Your task to perform on an android device: What's on the menu at Starbucks? Image 0: 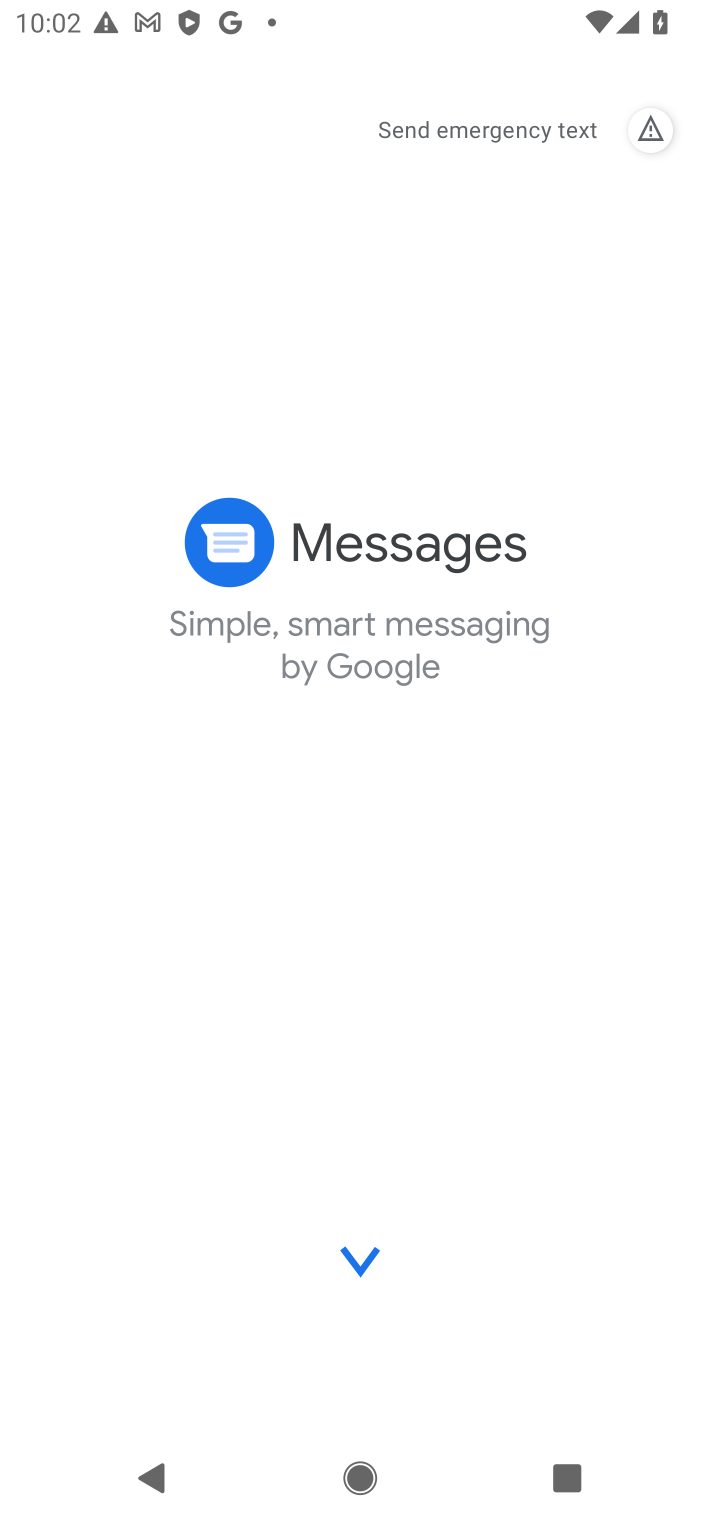
Step 0: press home button
Your task to perform on an android device: What's on the menu at Starbucks? Image 1: 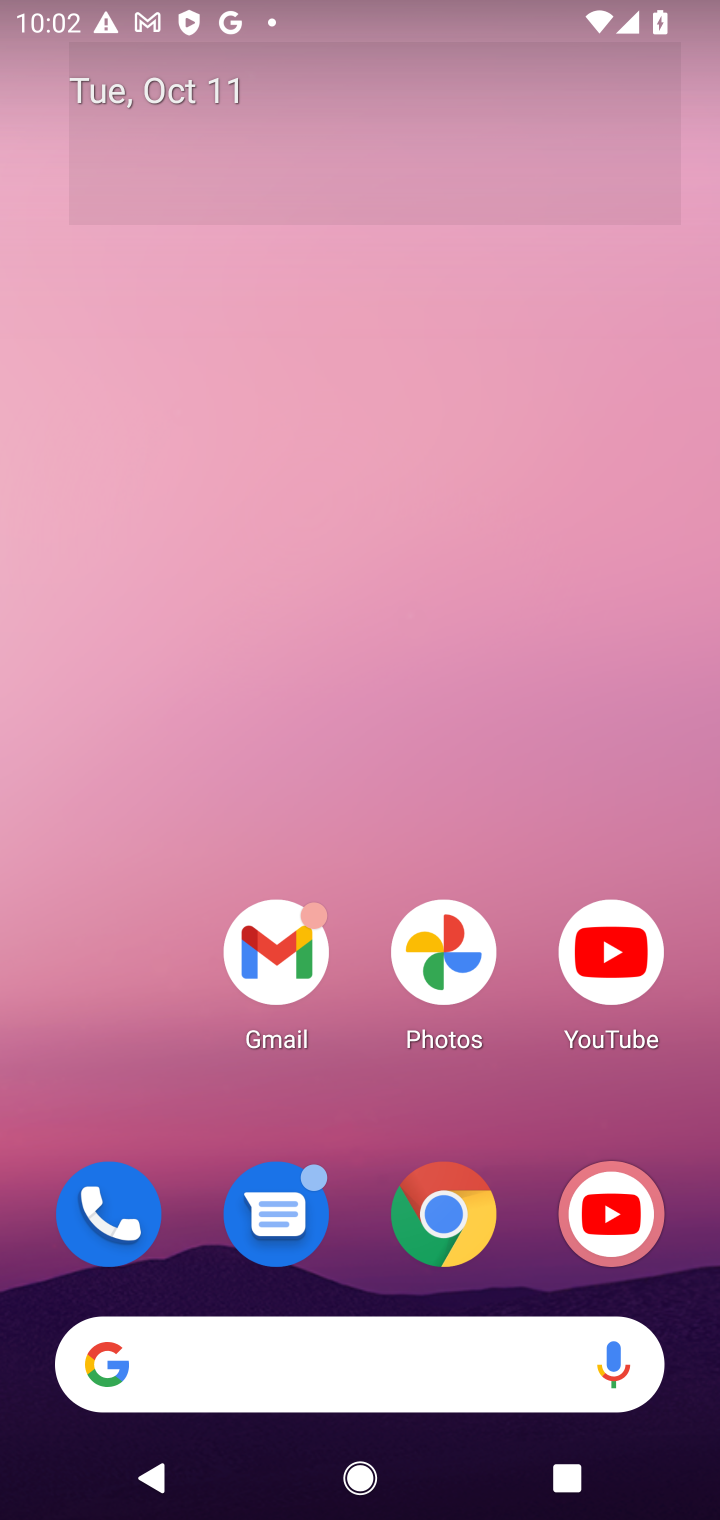
Step 1: drag from (451, 386) to (426, 248)
Your task to perform on an android device: What's on the menu at Starbucks? Image 2: 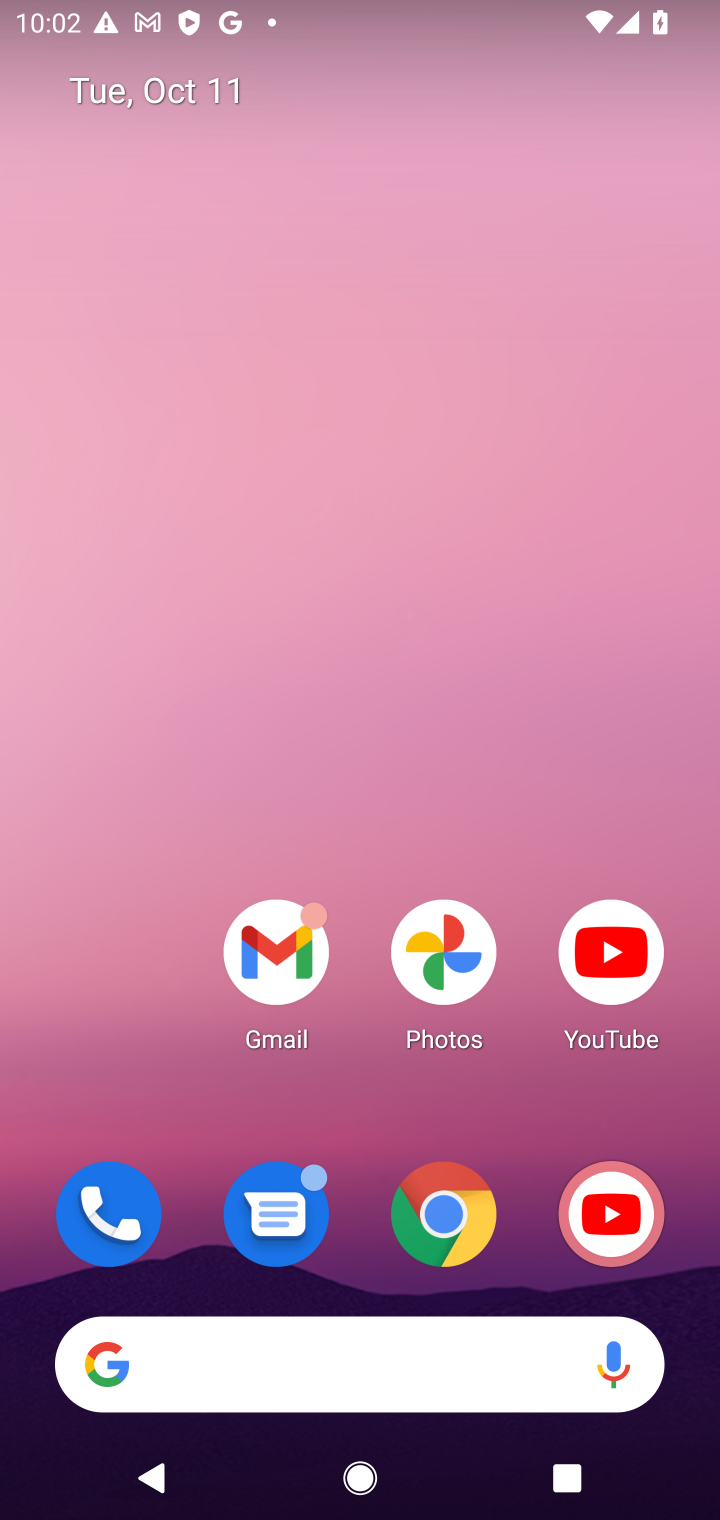
Step 2: drag from (340, 863) to (414, 265)
Your task to perform on an android device: What's on the menu at Starbucks? Image 3: 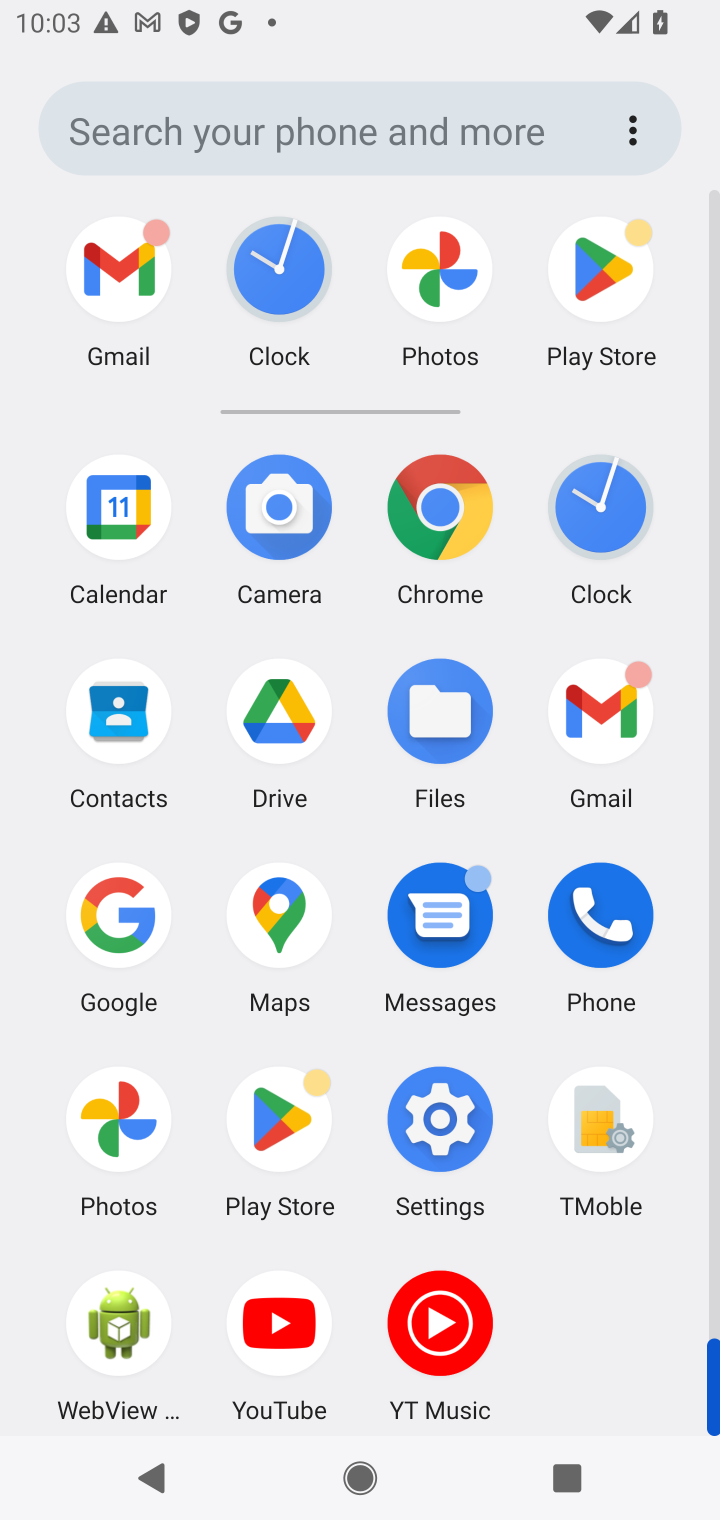
Step 3: click (450, 505)
Your task to perform on an android device: What's on the menu at Starbucks? Image 4: 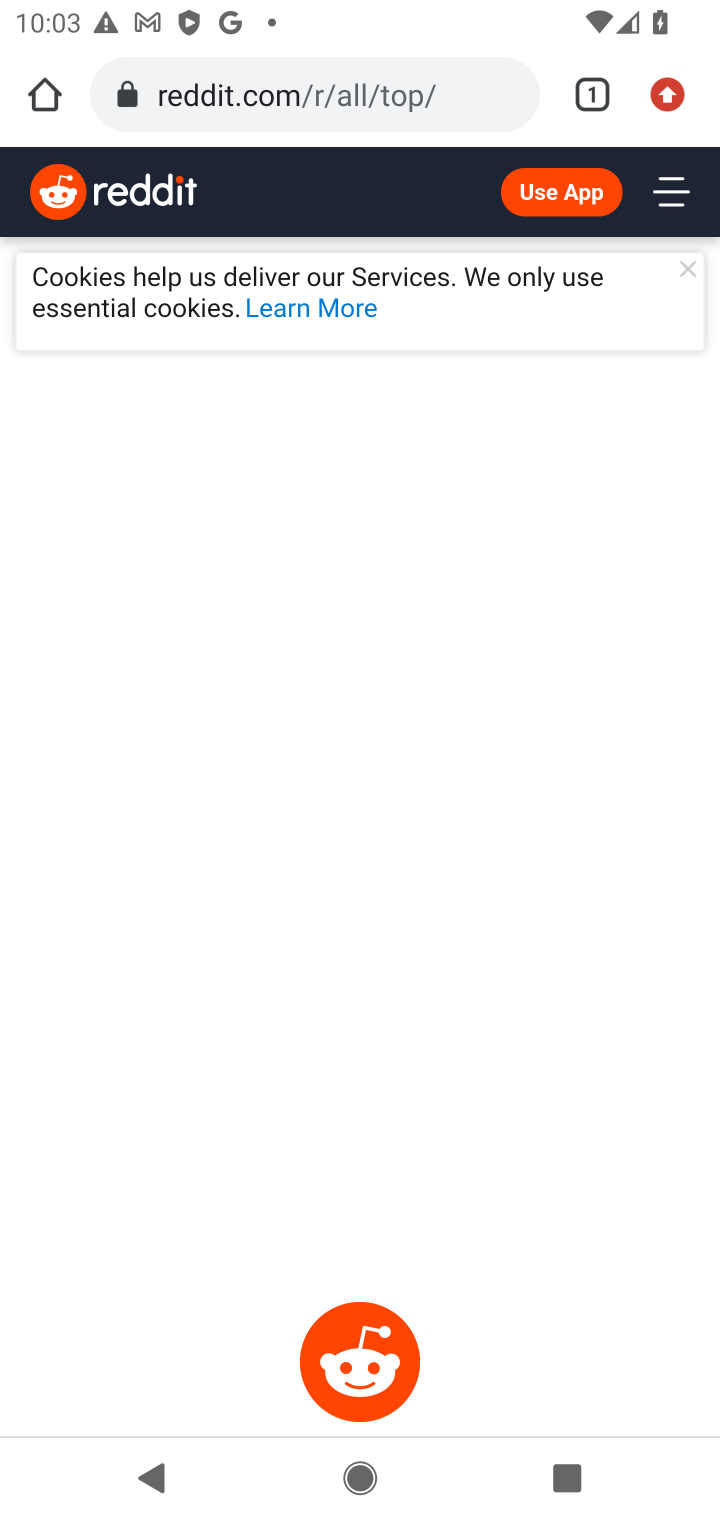
Step 4: click (305, 84)
Your task to perform on an android device: What's on the menu at Starbucks? Image 5: 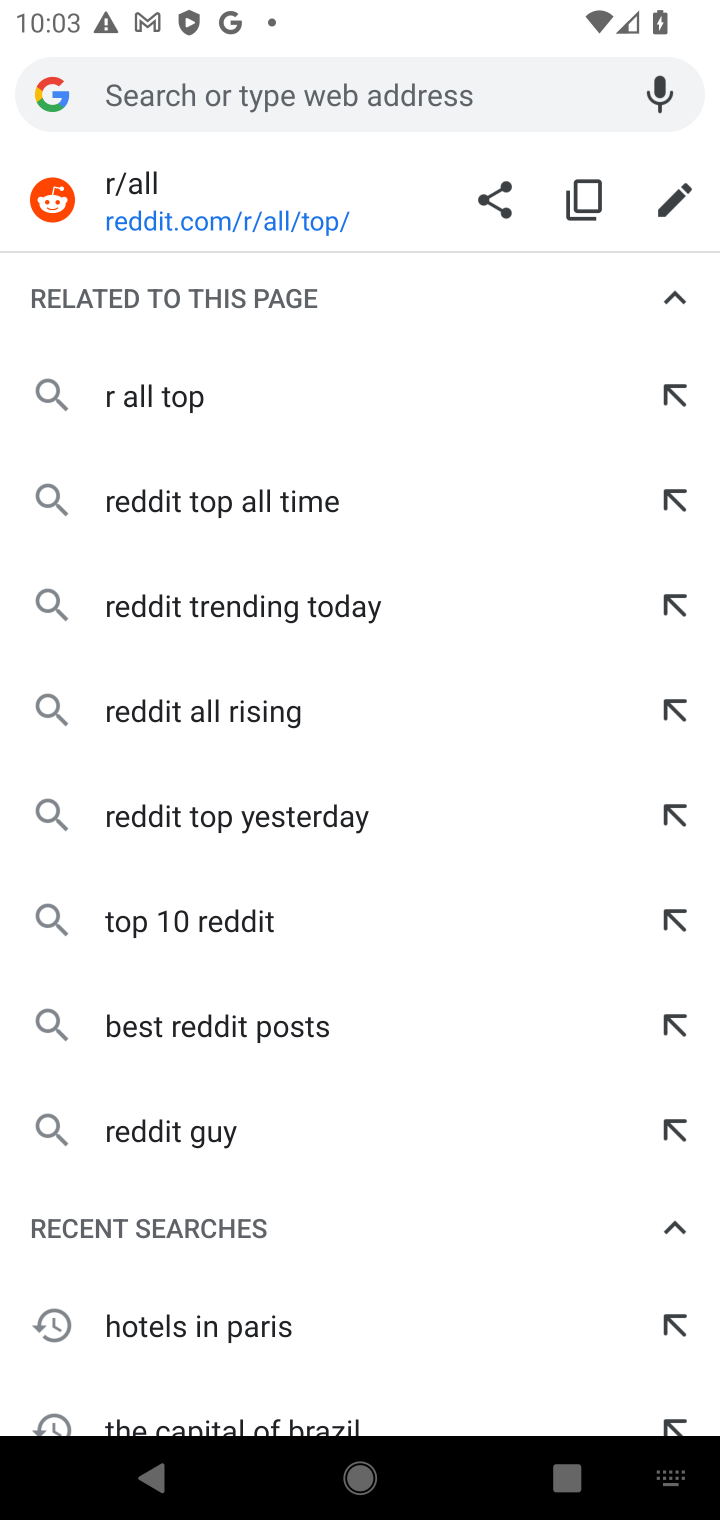
Step 5: type "what's on the menu at Starbucks?"
Your task to perform on an android device: What's on the menu at Starbucks? Image 6: 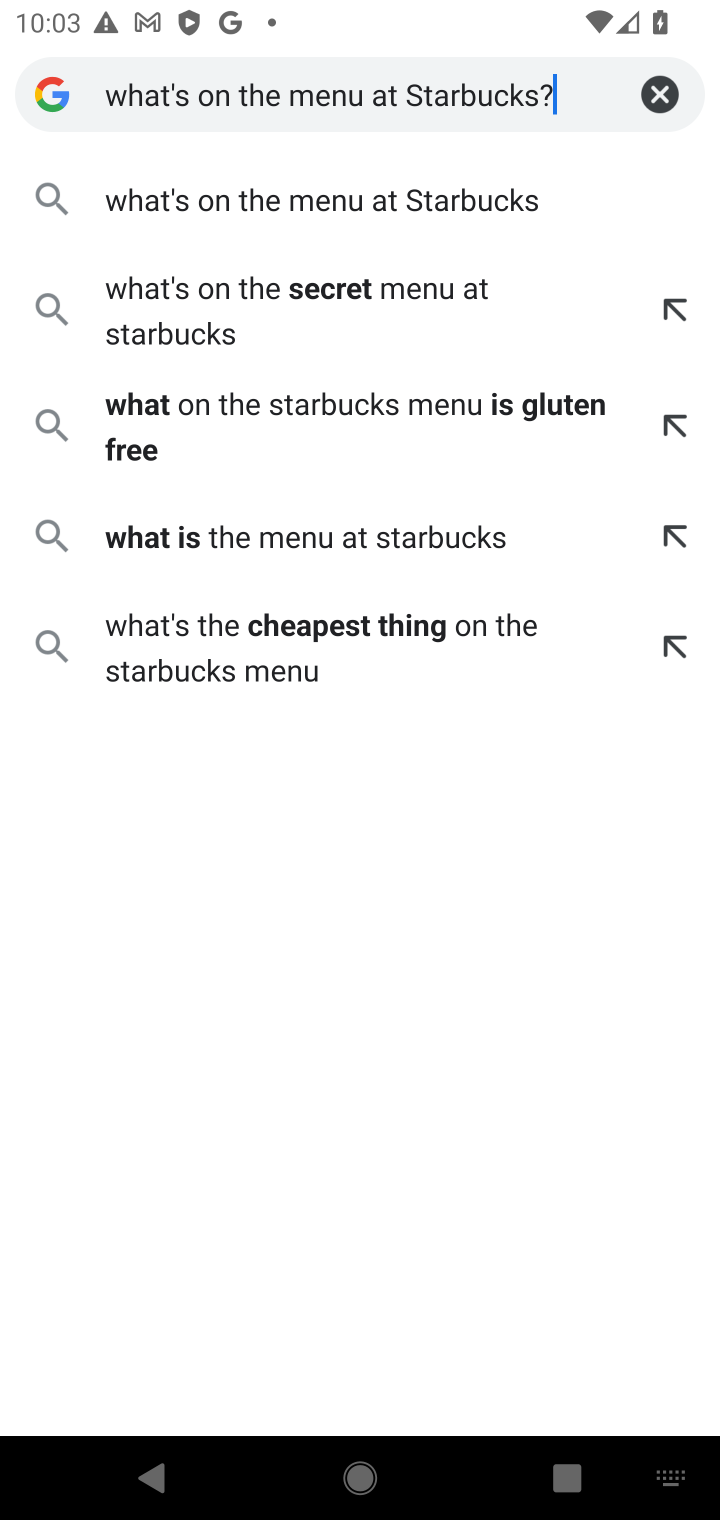
Step 6: press enter
Your task to perform on an android device: What's on the menu at Starbucks? Image 7: 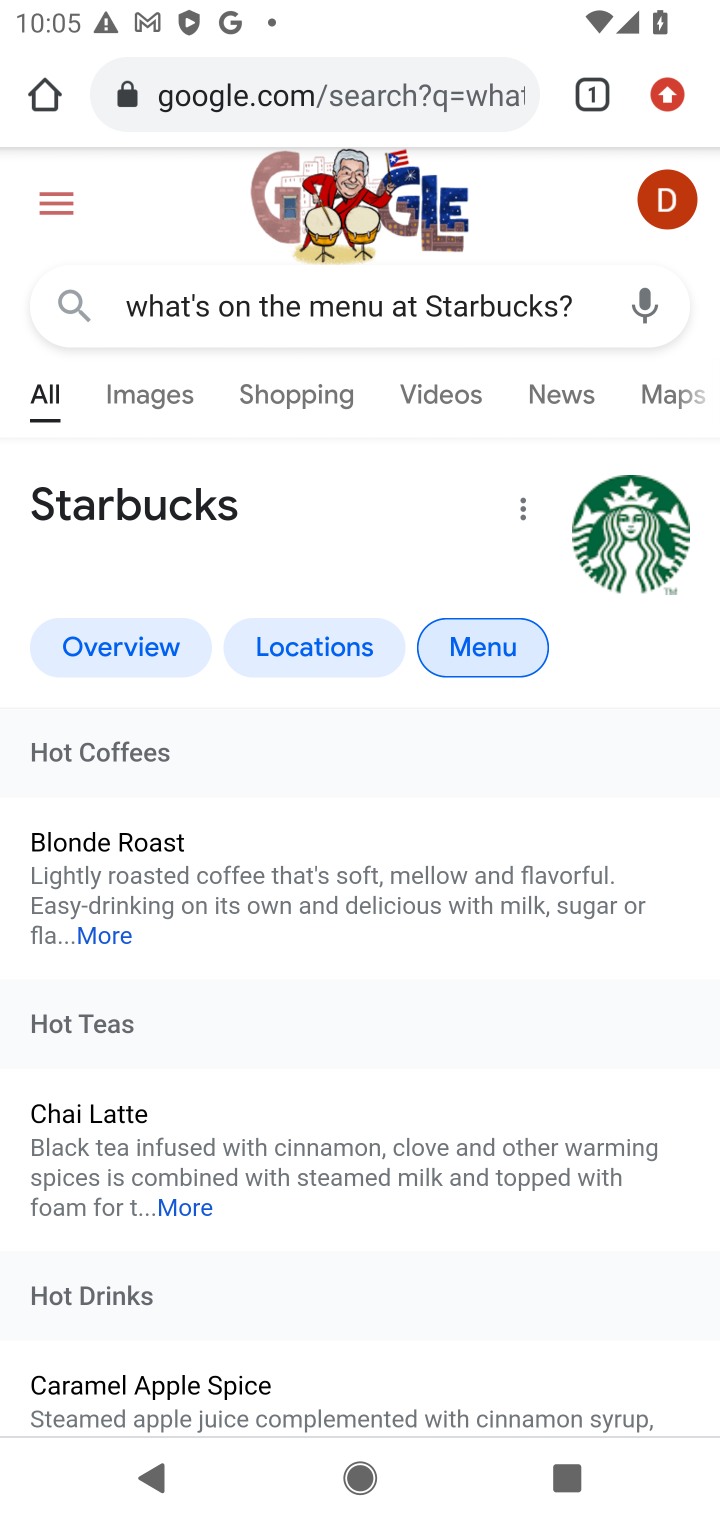
Step 7: click (468, 656)
Your task to perform on an android device: What's on the menu at Starbucks? Image 8: 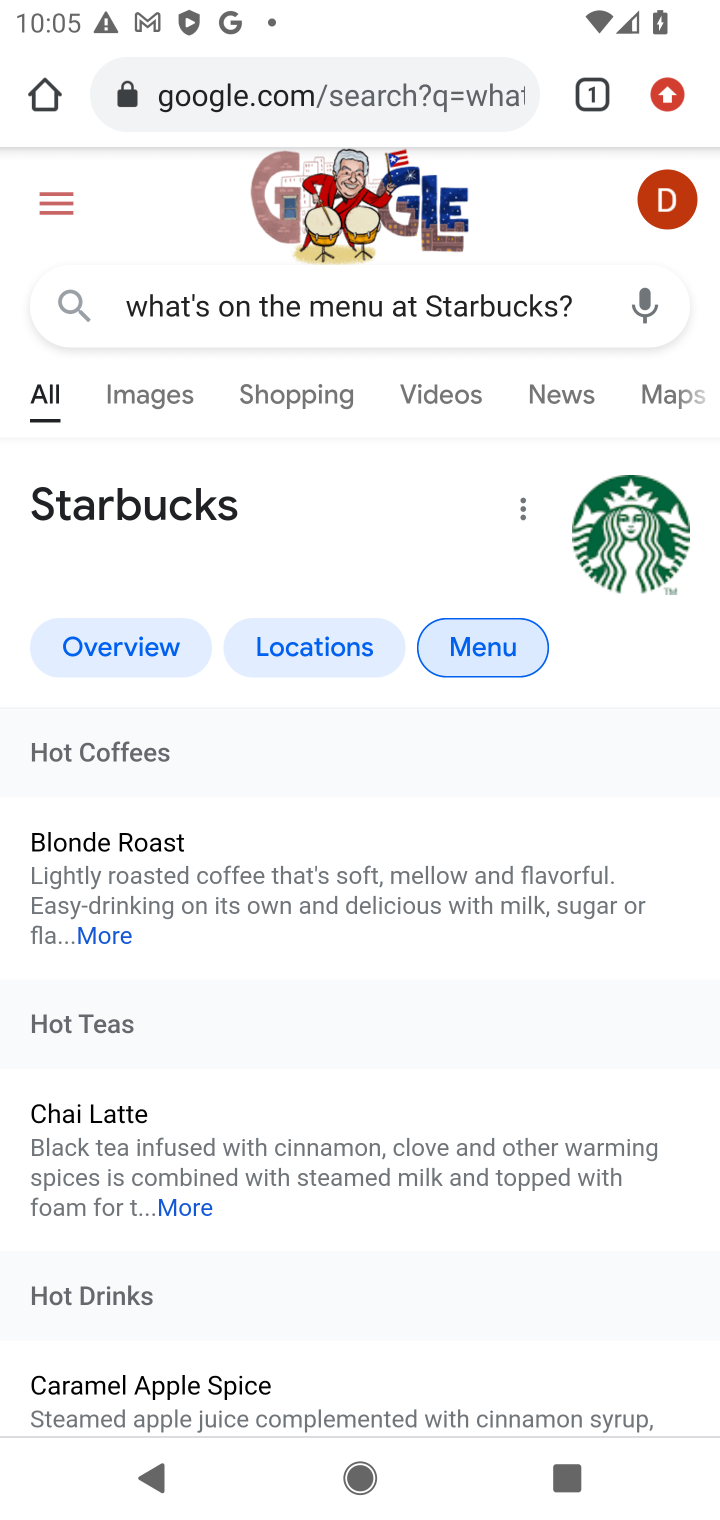
Step 8: click (504, 656)
Your task to perform on an android device: What's on the menu at Starbucks? Image 9: 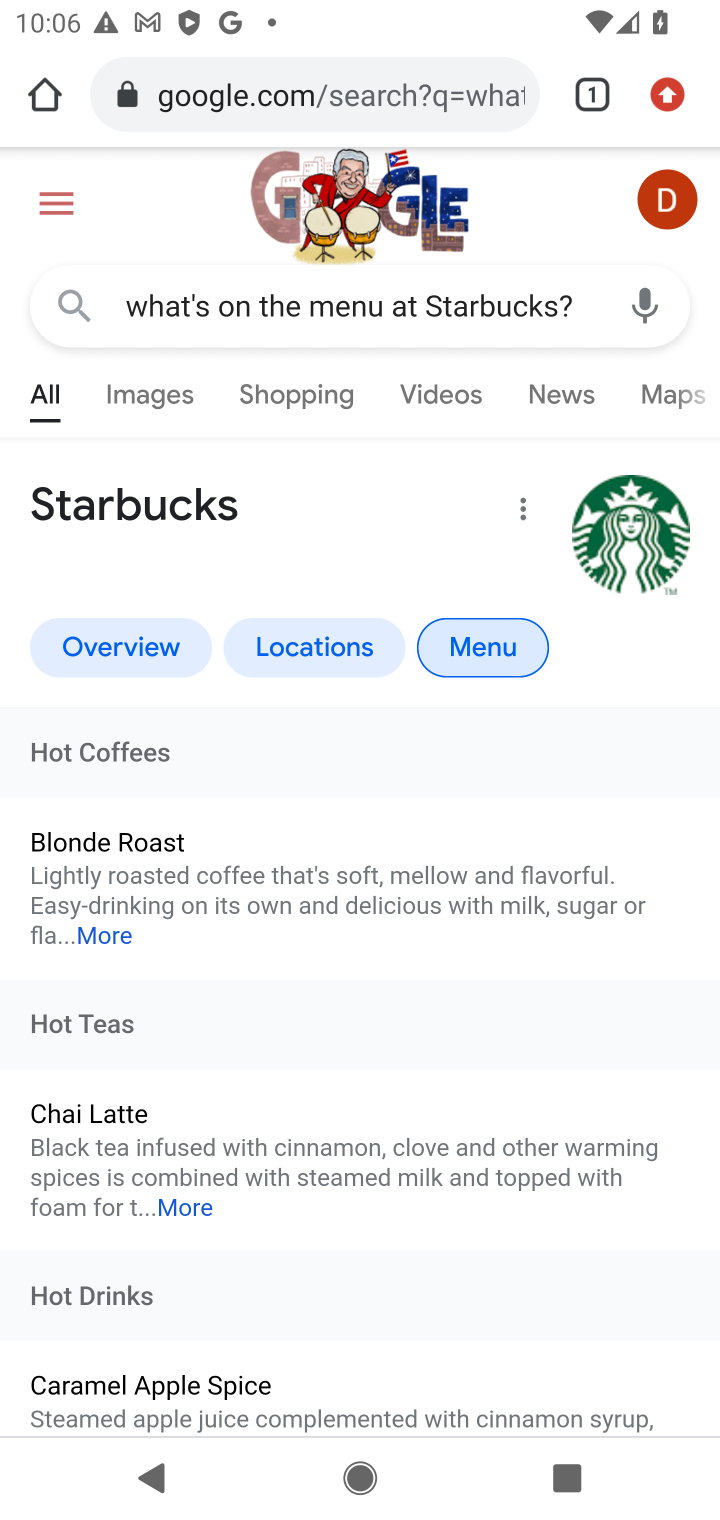
Step 9: drag from (431, 1180) to (388, 271)
Your task to perform on an android device: What's on the menu at Starbucks? Image 10: 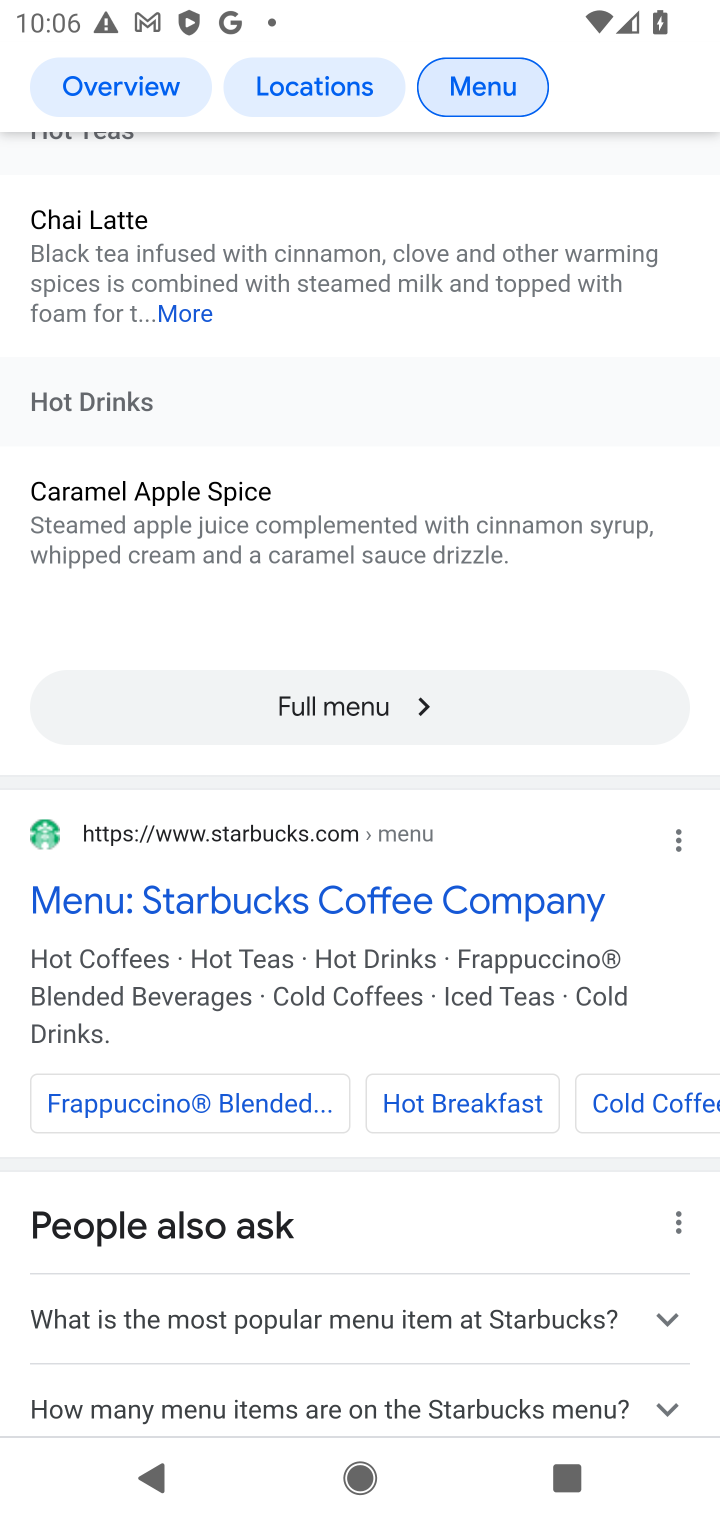
Step 10: click (370, 713)
Your task to perform on an android device: What's on the menu at Starbucks? Image 11: 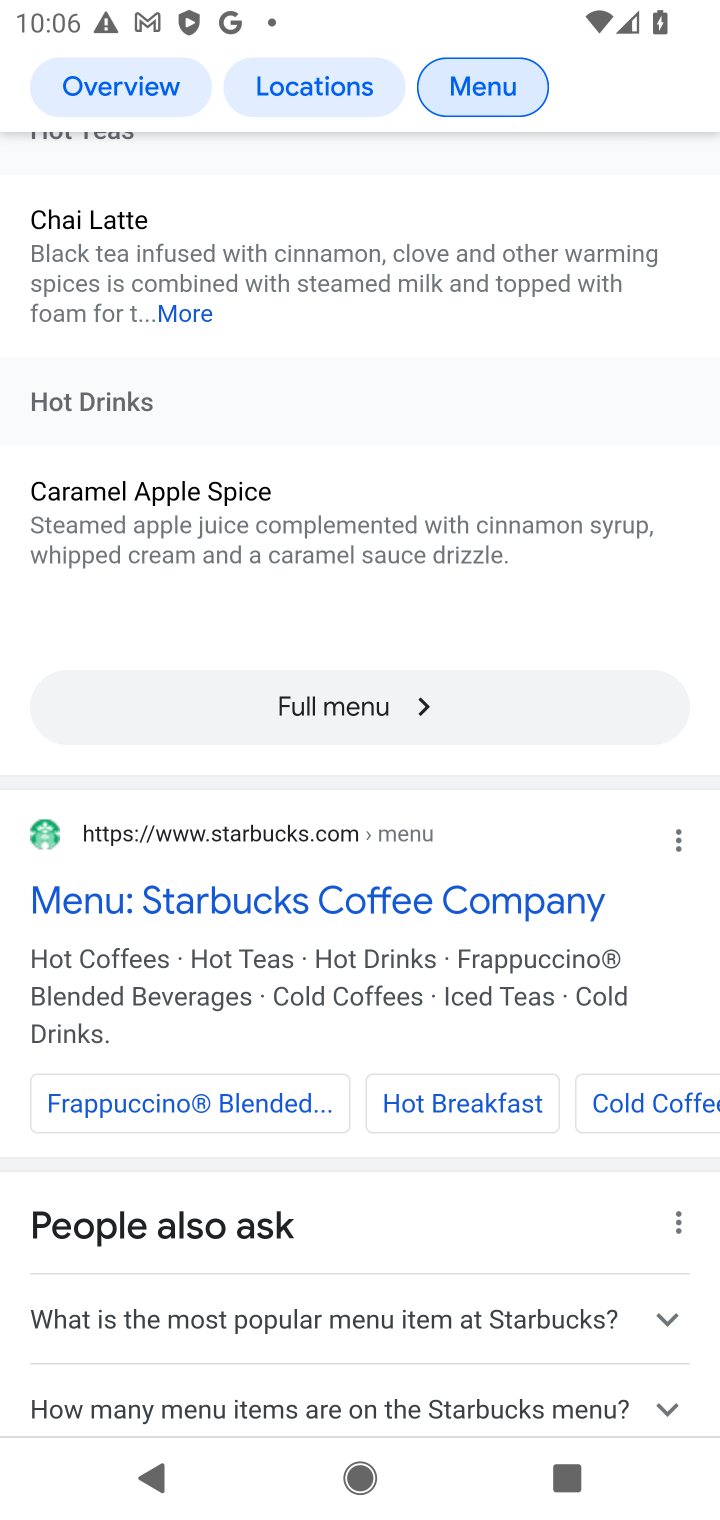
Step 11: click (376, 692)
Your task to perform on an android device: What's on the menu at Starbucks? Image 12: 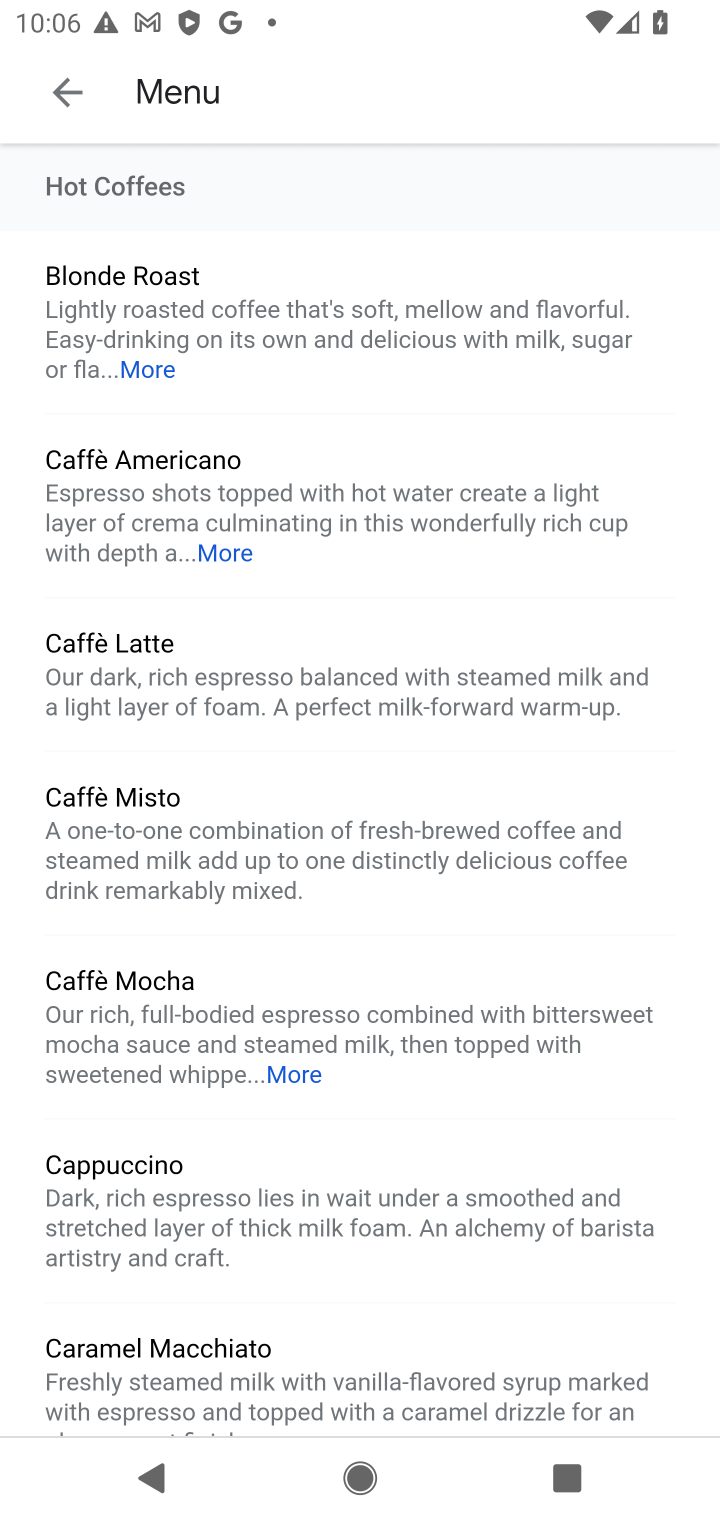
Step 12: task complete